Your task to perform on an android device: Open accessibility settings Image 0: 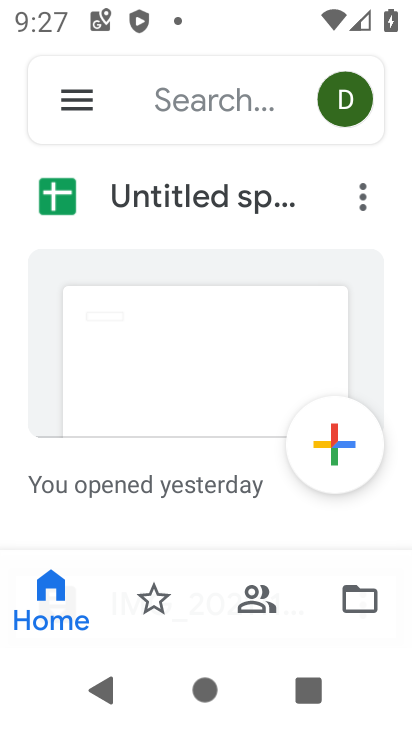
Step 0: press home button
Your task to perform on an android device: Open accessibility settings Image 1: 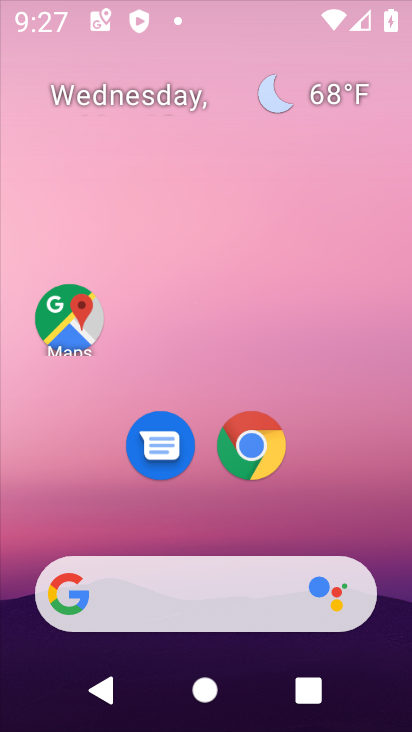
Step 1: drag from (333, 539) to (352, 53)
Your task to perform on an android device: Open accessibility settings Image 2: 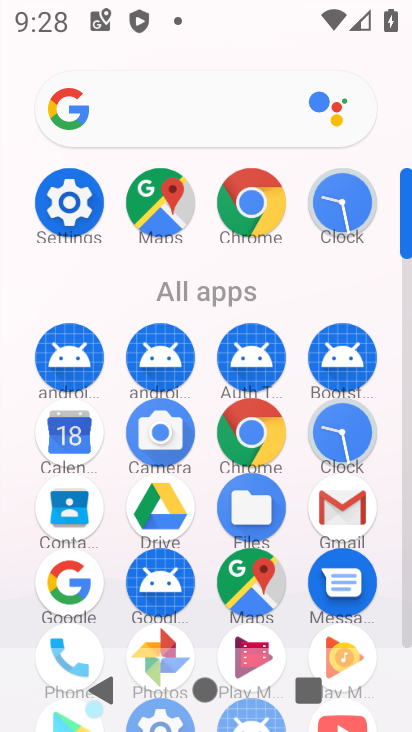
Step 2: click (81, 203)
Your task to perform on an android device: Open accessibility settings Image 3: 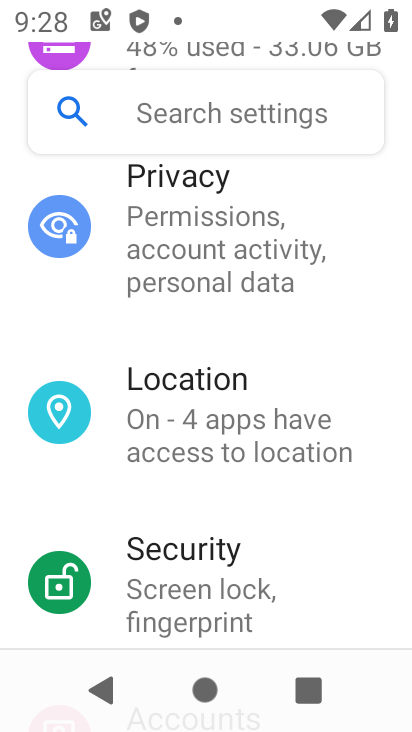
Step 3: drag from (231, 549) to (208, 184)
Your task to perform on an android device: Open accessibility settings Image 4: 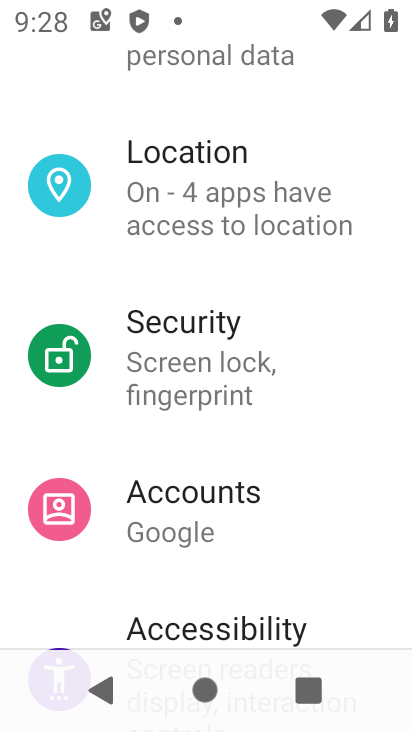
Step 4: drag from (203, 480) to (230, 146)
Your task to perform on an android device: Open accessibility settings Image 5: 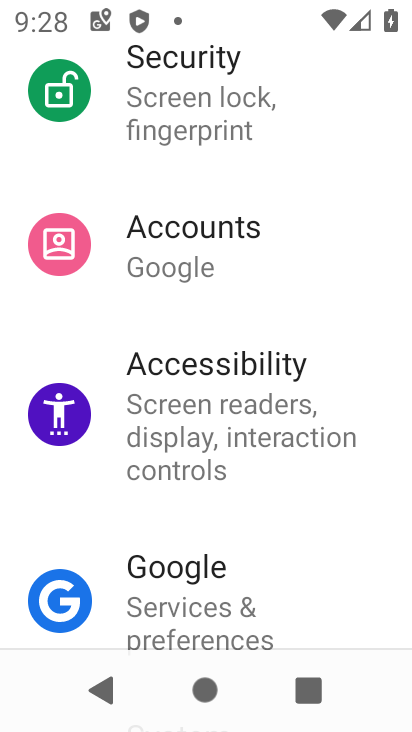
Step 5: click (203, 385)
Your task to perform on an android device: Open accessibility settings Image 6: 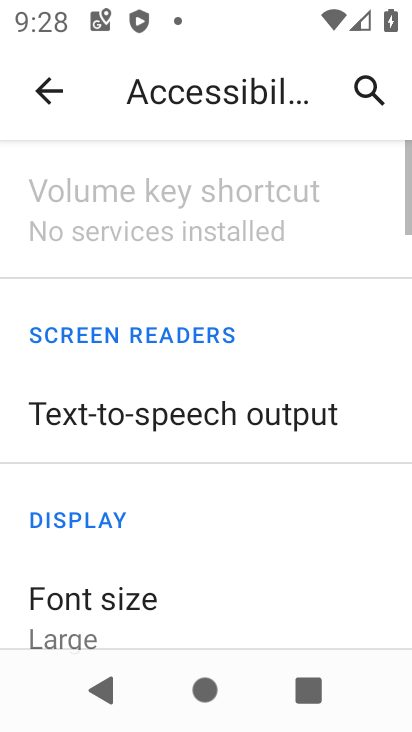
Step 6: task complete